Your task to perform on an android device: Open Amazon Image 0: 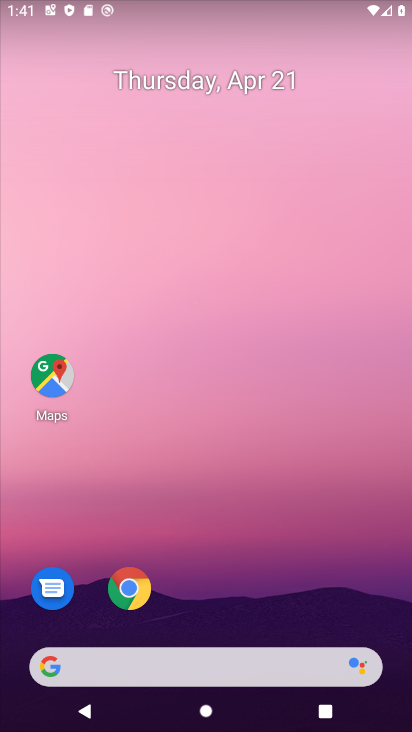
Step 0: click (128, 593)
Your task to perform on an android device: Open Amazon Image 1: 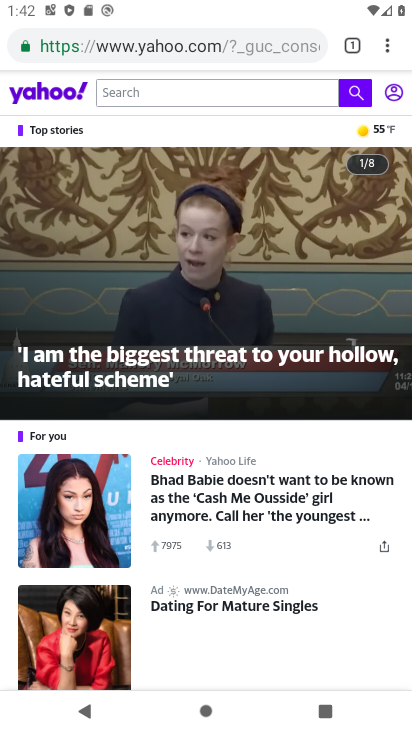
Step 1: click (302, 55)
Your task to perform on an android device: Open Amazon Image 2: 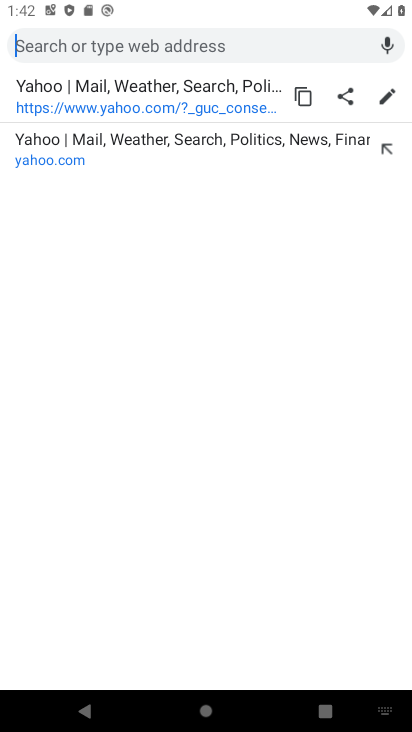
Step 2: type "amazon"
Your task to perform on an android device: Open Amazon Image 3: 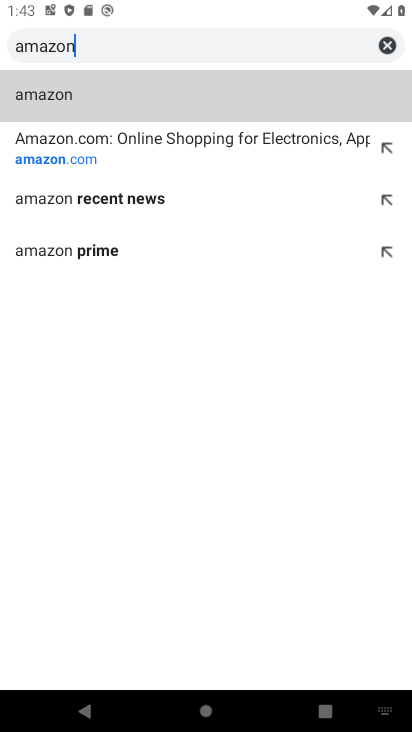
Step 3: click (209, 140)
Your task to perform on an android device: Open Amazon Image 4: 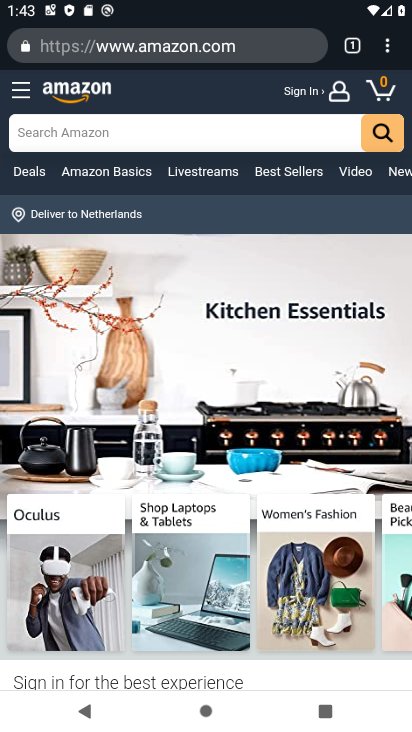
Step 4: task complete